Your task to perform on an android device: Open eBay Image 0: 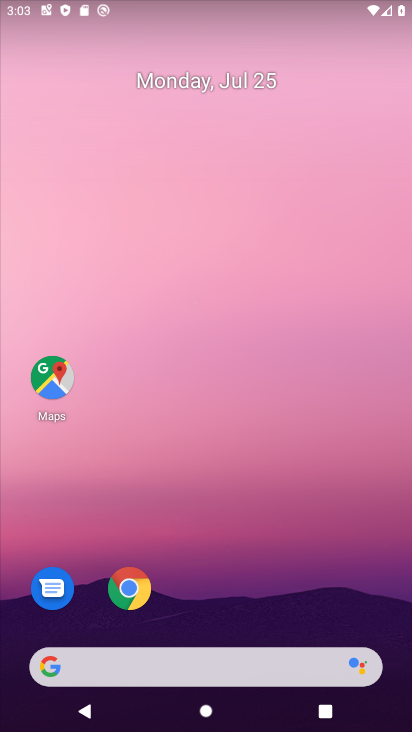
Step 0: click (146, 590)
Your task to perform on an android device: Open eBay Image 1: 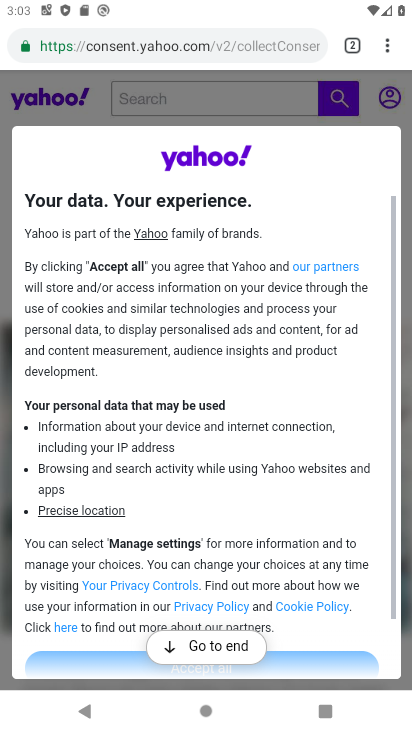
Step 1: click (353, 46)
Your task to perform on an android device: Open eBay Image 2: 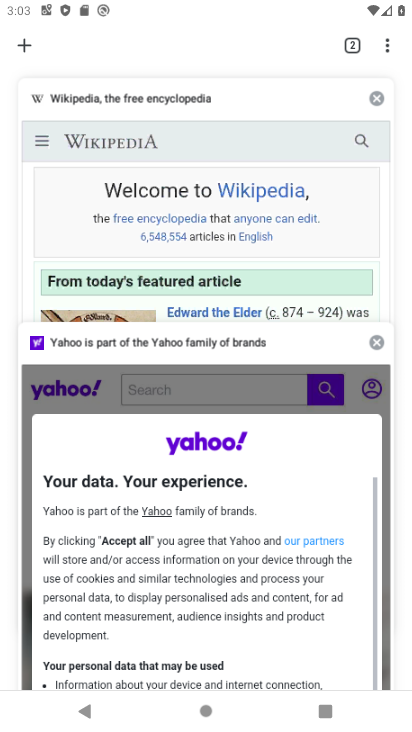
Step 2: click (30, 44)
Your task to perform on an android device: Open eBay Image 3: 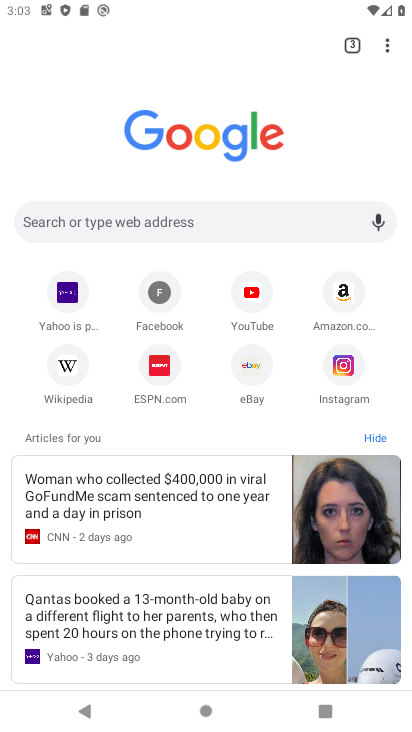
Step 3: click (250, 377)
Your task to perform on an android device: Open eBay Image 4: 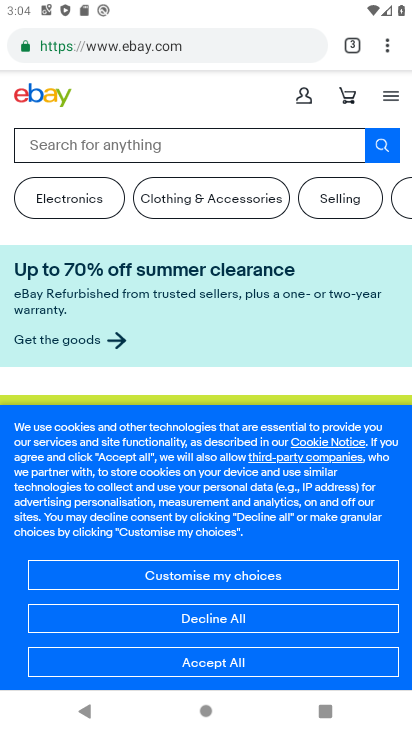
Step 4: task complete